Your task to perform on an android device: Open the stopwatch Image 0: 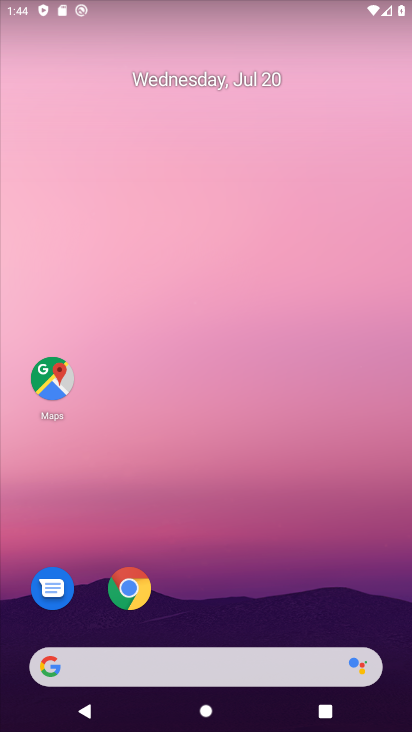
Step 0: drag from (195, 652) to (219, 37)
Your task to perform on an android device: Open the stopwatch Image 1: 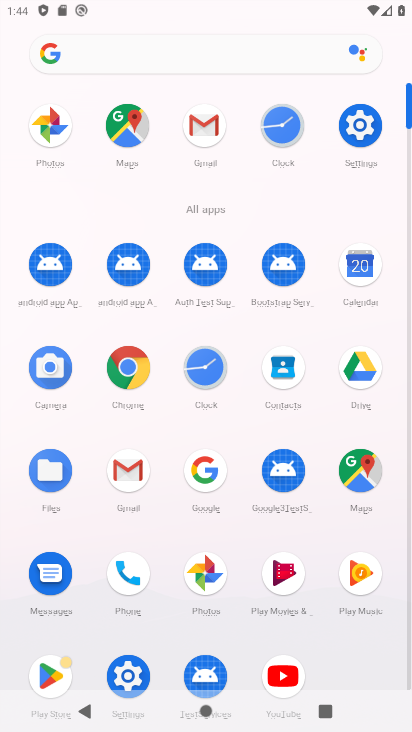
Step 1: click (213, 372)
Your task to perform on an android device: Open the stopwatch Image 2: 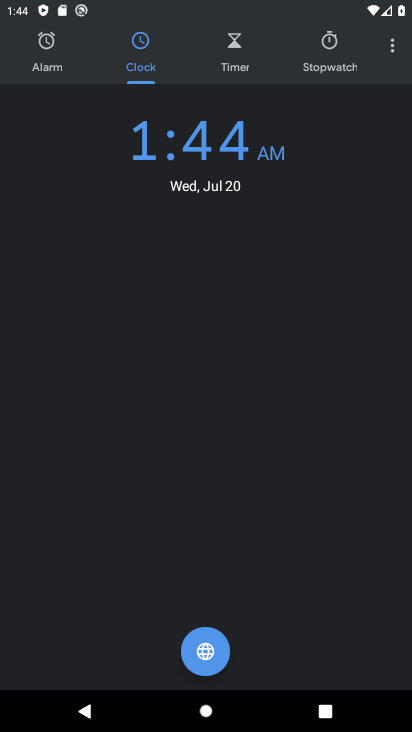
Step 2: click (327, 44)
Your task to perform on an android device: Open the stopwatch Image 3: 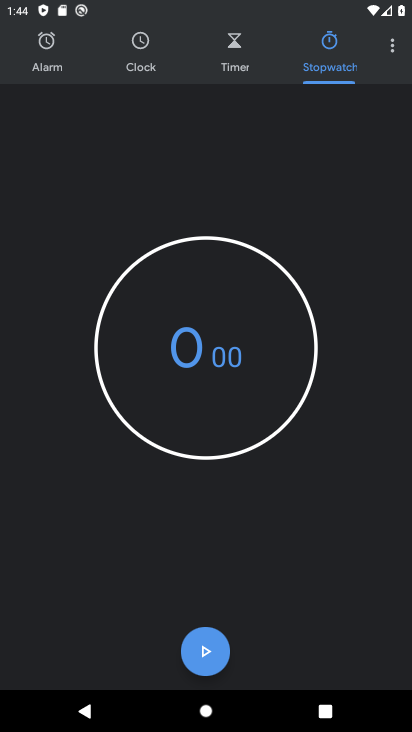
Step 3: click (196, 656)
Your task to perform on an android device: Open the stopwatch Image 4: 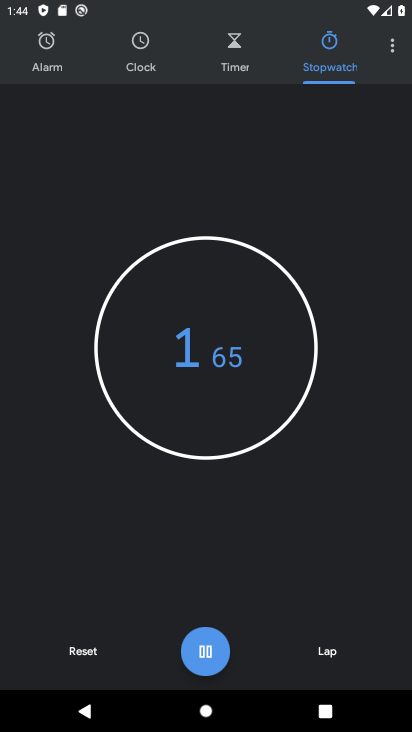
Step 4: task complete